Your task to perform on an android device: Open the Play Movies app and select the watchlist tab. Image 0: 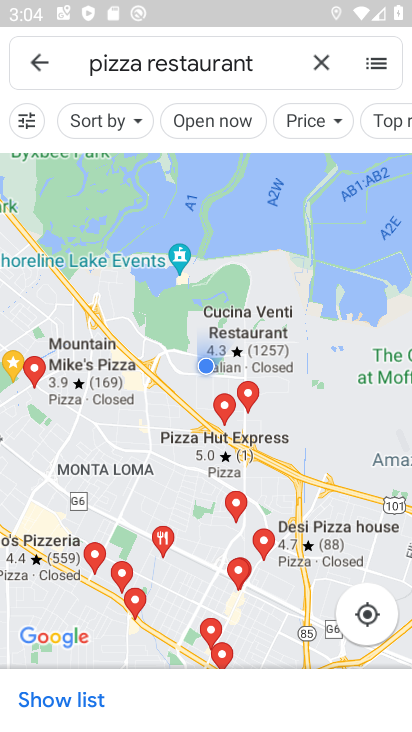
Step 0: press home button
Your task to perform on an android device: Open the Play Movies app and select the watchlist tab. Image 1: 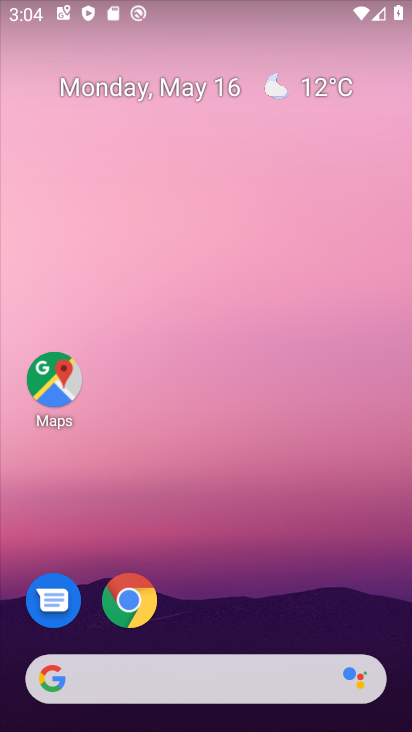
Step 1: drag from (243, 661) to (385, 8)
Your task to perform on an android device: Open the Play Movies app and select the watchlist tab. Image 2: 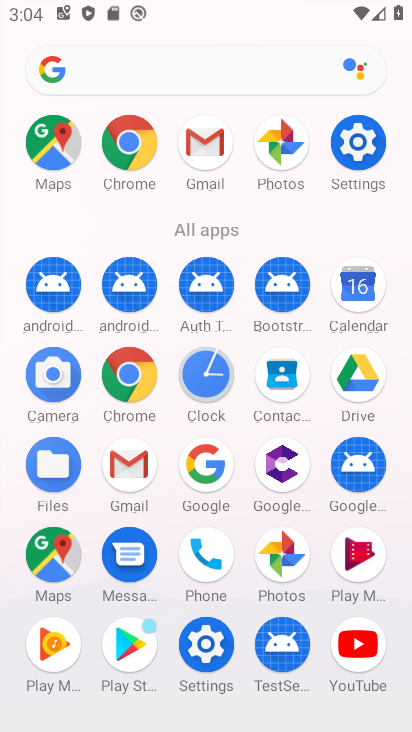
Step 2: click (345, 561)
Your task to perform on an android device: Open the Play Movies app and select the watchlist tab. Image 3: 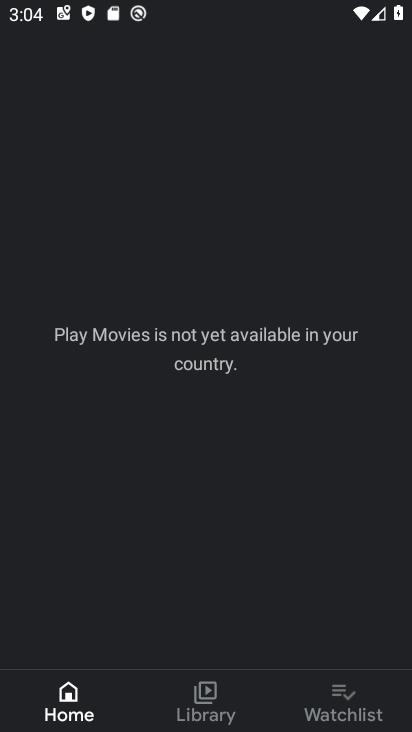
Step 3: click (342, 691)
Your task to perform on an android device: Open the Play Movies app and select the watchlist tab. Image 4: 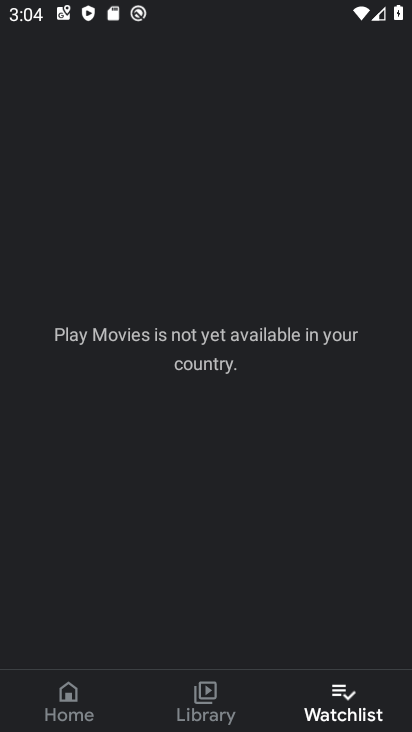
Step 4: task complete